Your task to perform on an android device: Go to sound settings Image 0: 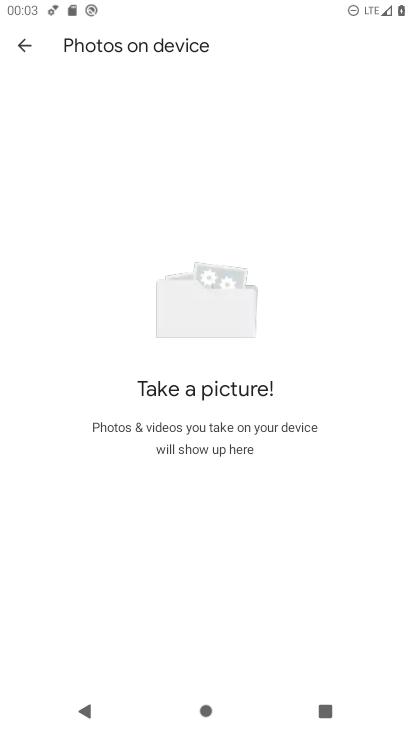
Step 0: press home button
Your task to perform on an android device: Go to sound settings Image 1: 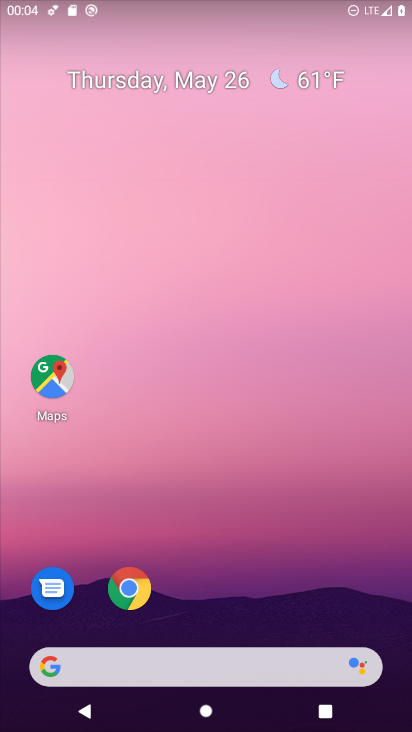
Step 1: drag from (262, 480) to (174, 115)
Your task to perform on an android device: Go to sound settings Image 2: 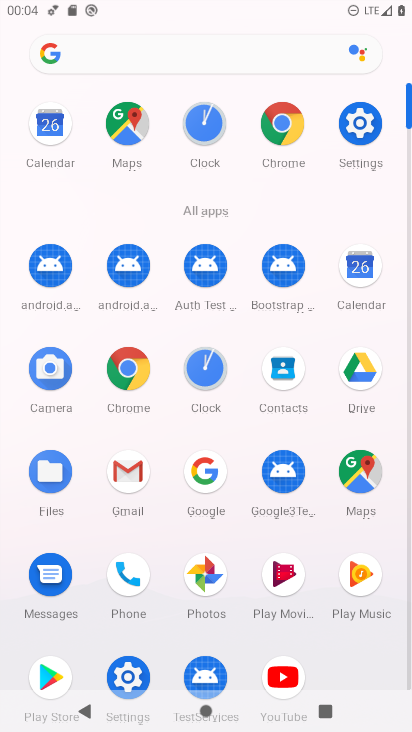
Step 2: click (357, 129)
Your task to perform on an android device: Go to sound settings Image 3: 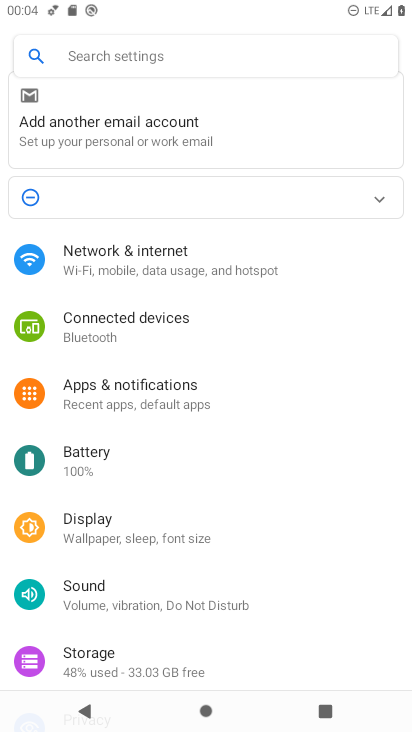
Step 3: click (78, 573)
Your task to perform on an android device: Go to sound settings Image 4: 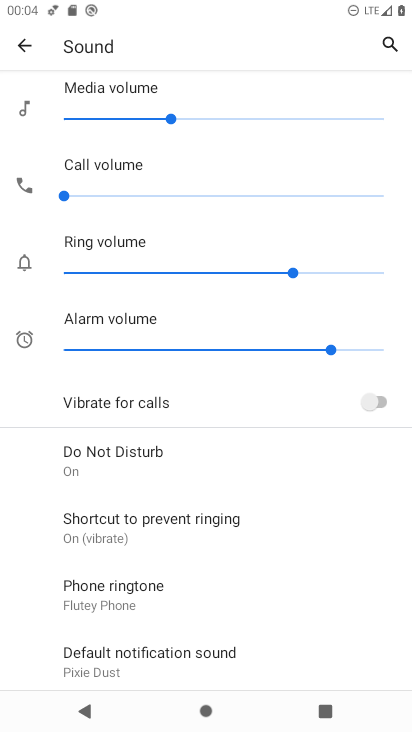
Step 4: task complete